Your task to perform on an android device: uninstall "LiveIn - Share Your Moment" Image 0: 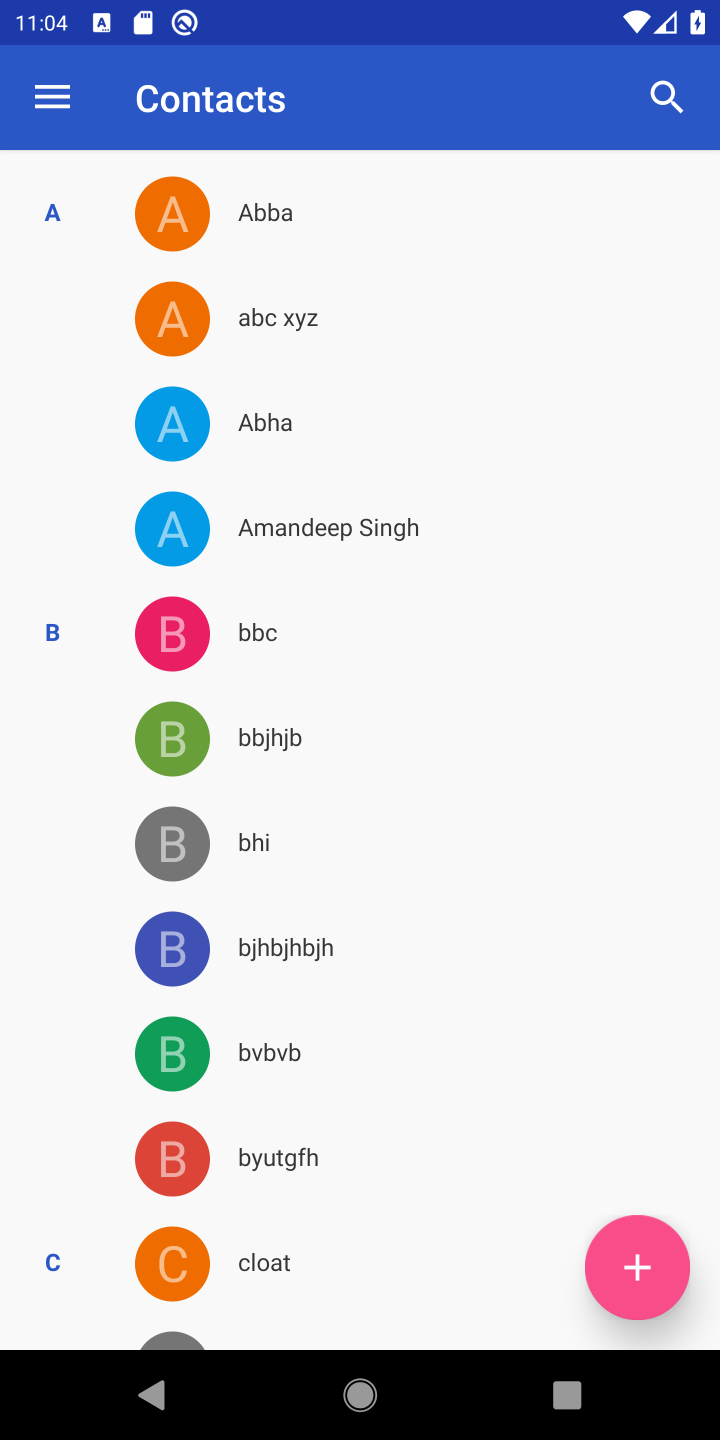
Step 0: press home button
Your task to perform on an android device: uninstall "LiveIn - Share Your Moment" Image 1: 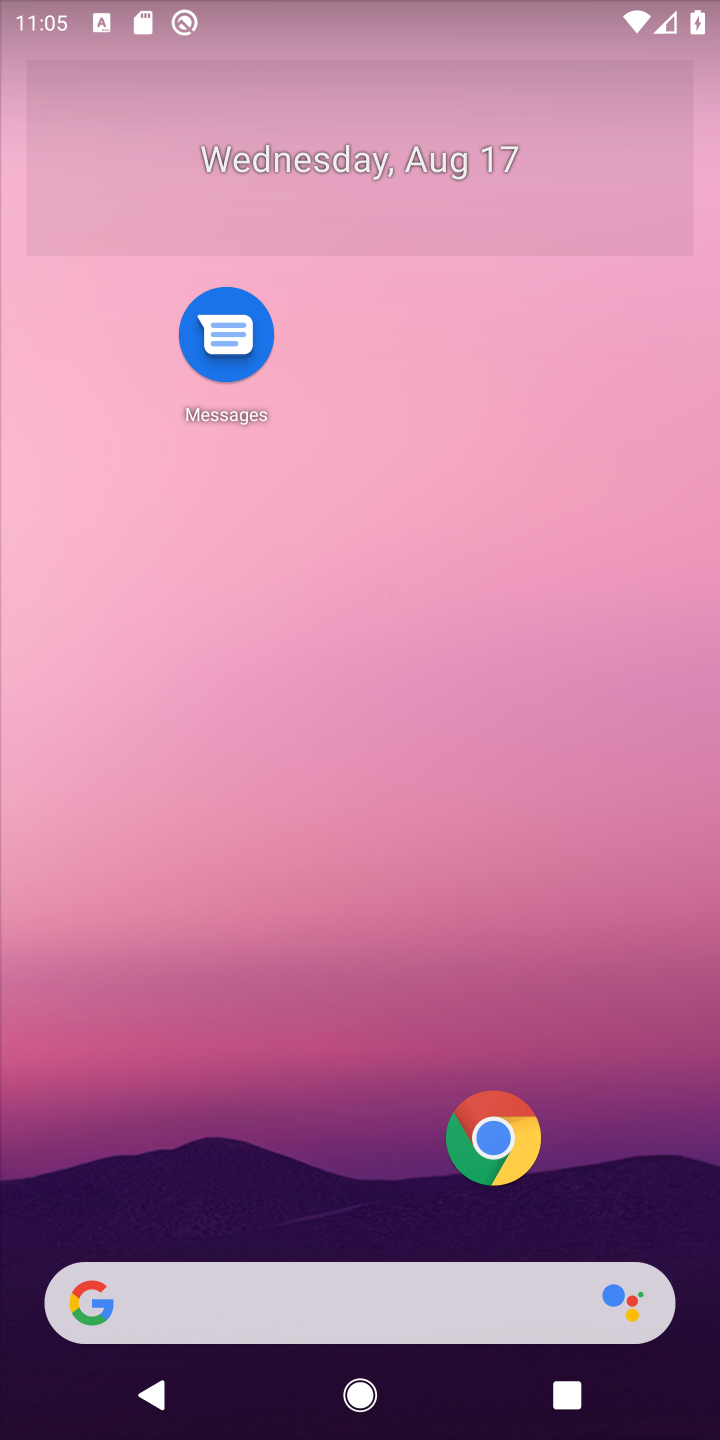
Step 1: drag from (399, 1186) to (323, 329)
Your task to perform on an android device: uninstall "LiveIn - Share Your Moment" Image 2: 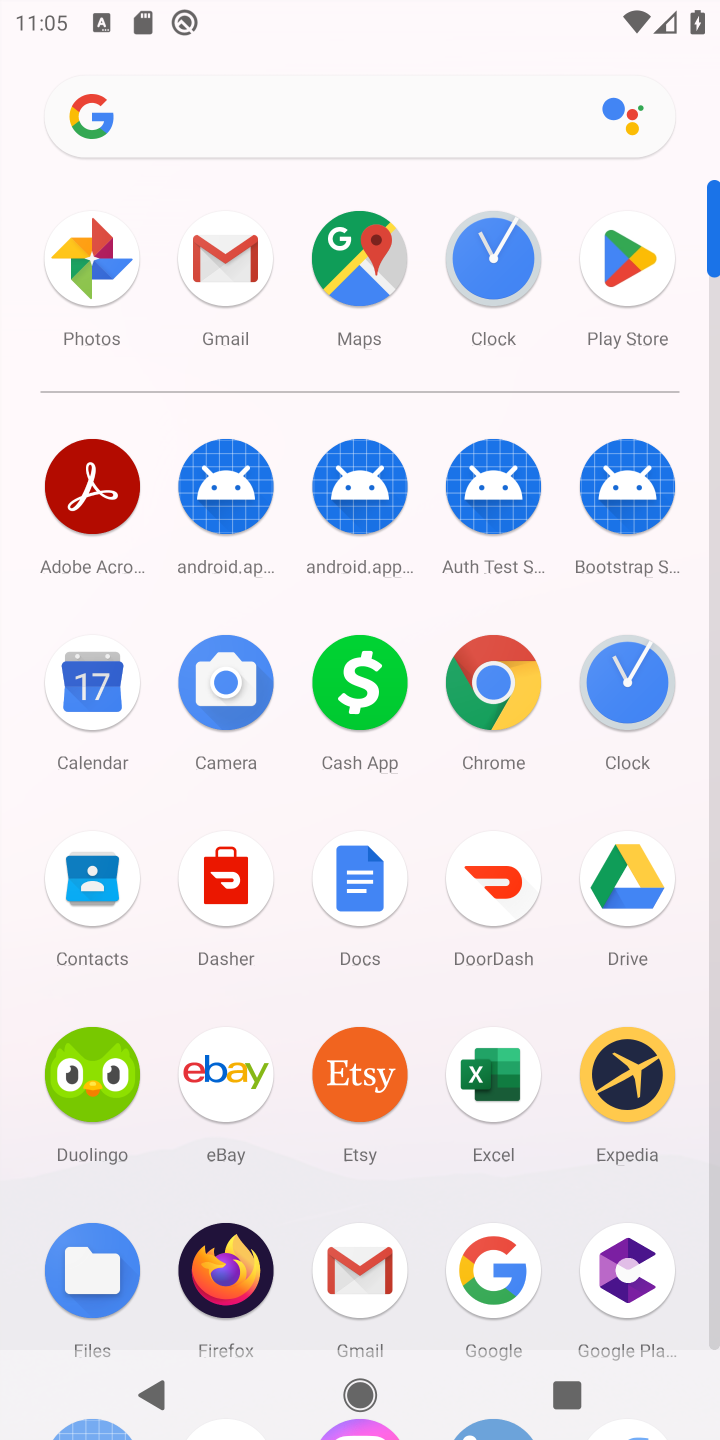
Step 2: click (644, 257)
Your task to perform on an android device: uninstall "LiveIn - Share Your Moment" Image 3: 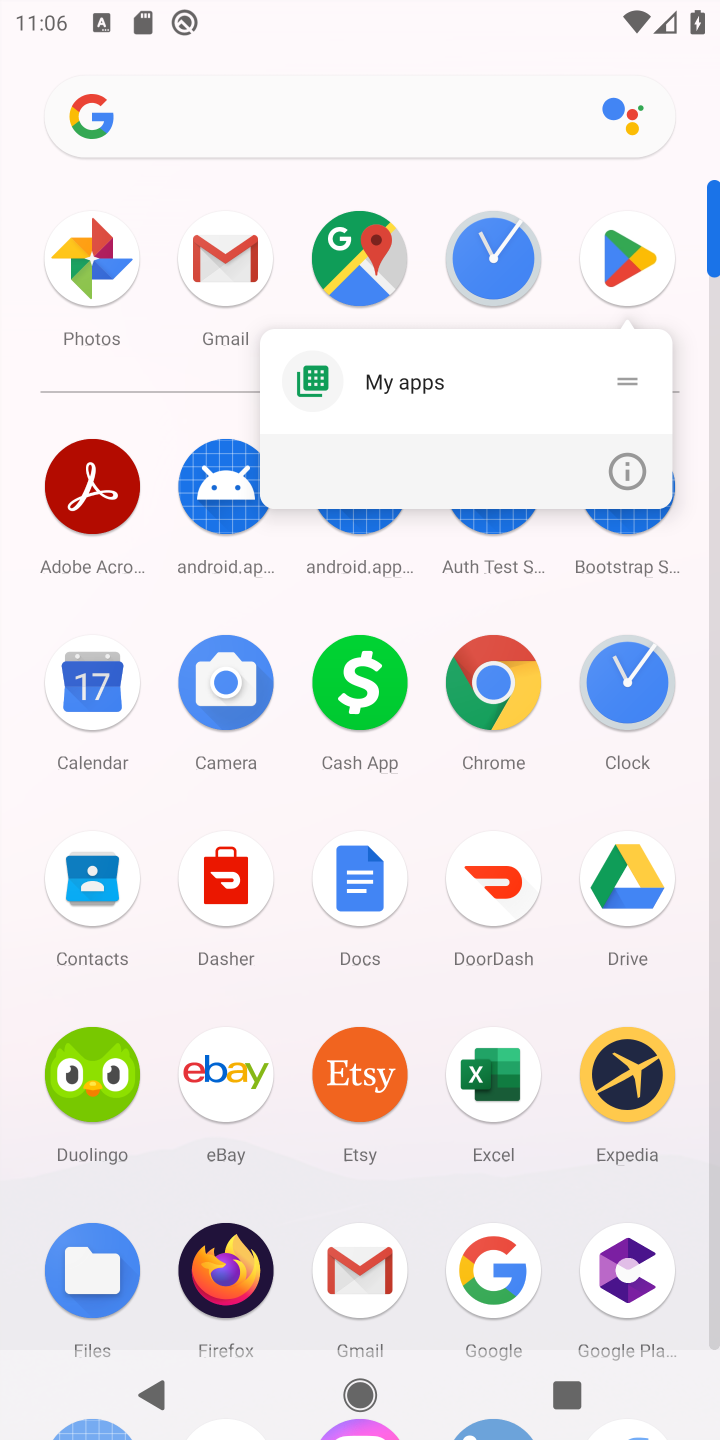
Step 3: click (617, 250)
Your task to perform on an android device: uninstall "LiveIn - Share Your Moment" Image 4: 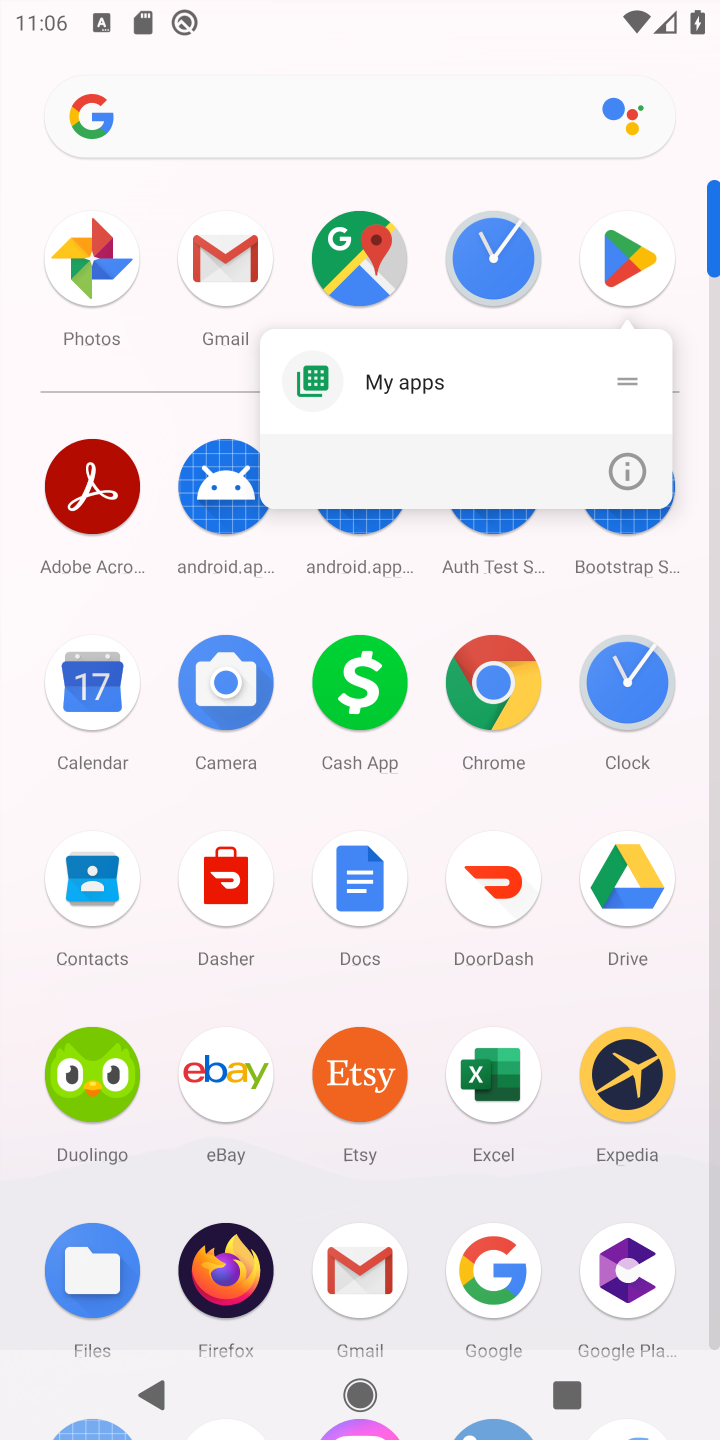
Step 4: click (637, 295)
Your task to perform on an android device: uninstall "LiveIn - Share Your Moment" Image 5: 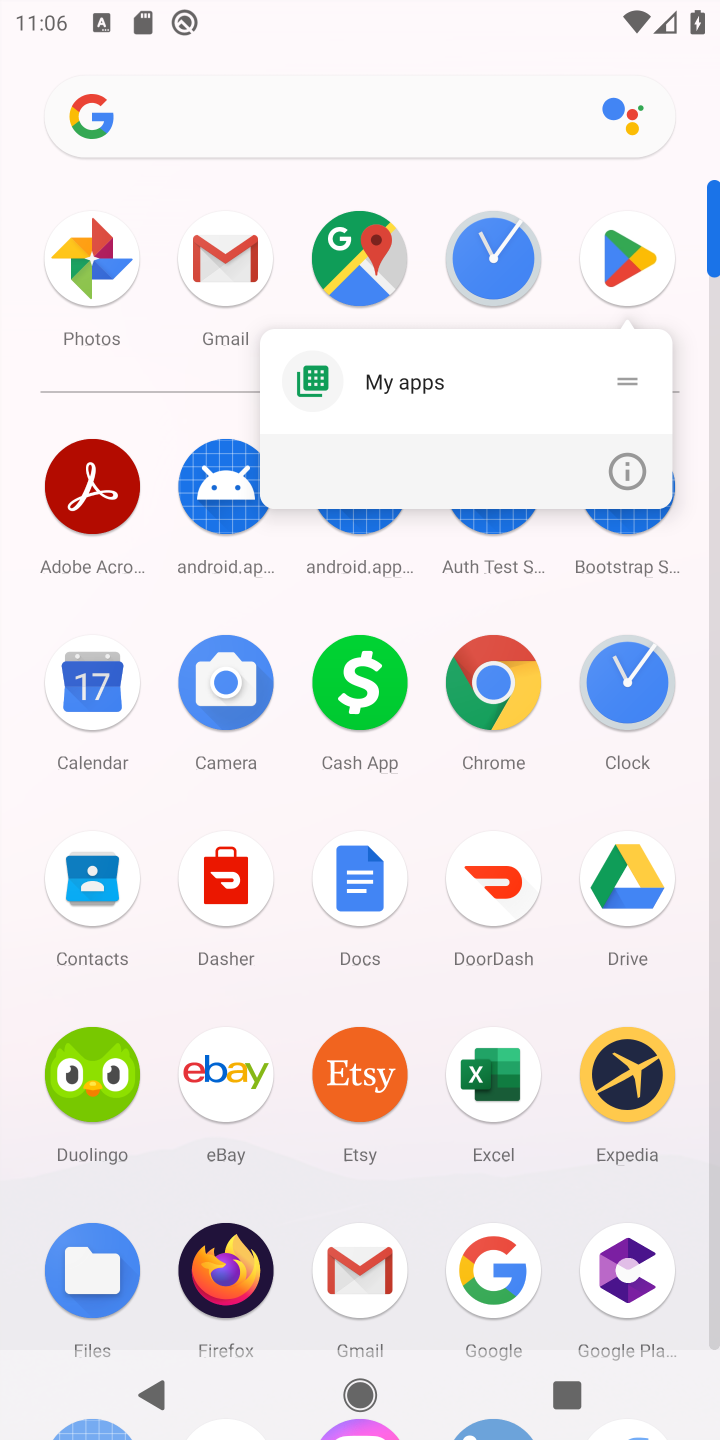
Step 5: click (633, 287)
Your task to perform on an android device: uninstall "LiveIn - Share Your Moment" Image 6: 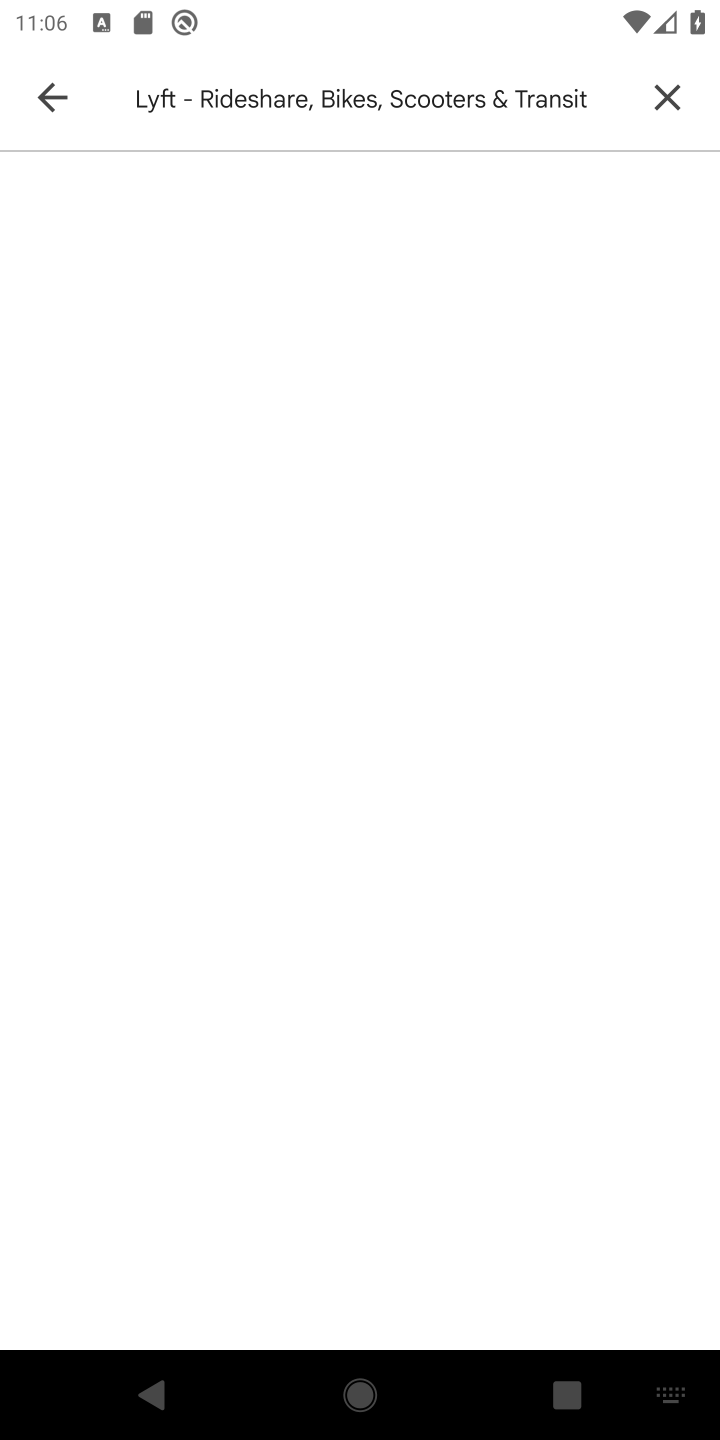
Step 6: click (668, 89)
Your task to perform on an android device: uninstall "LiveIn - Share Your Moment" Image 7: 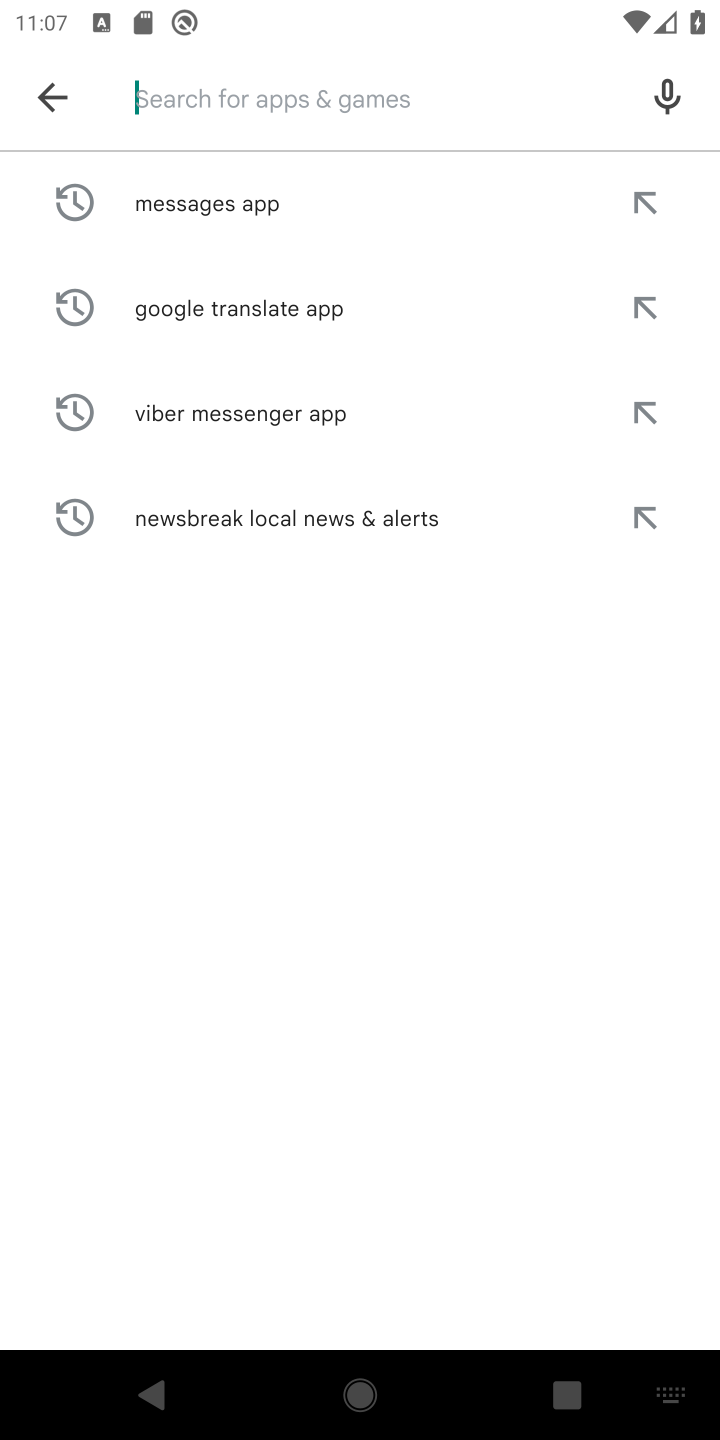
Step 7: click (270, 105)
Your task to perform on an android device: uninstall "LiveIn - Share Your Moment" Image 8: 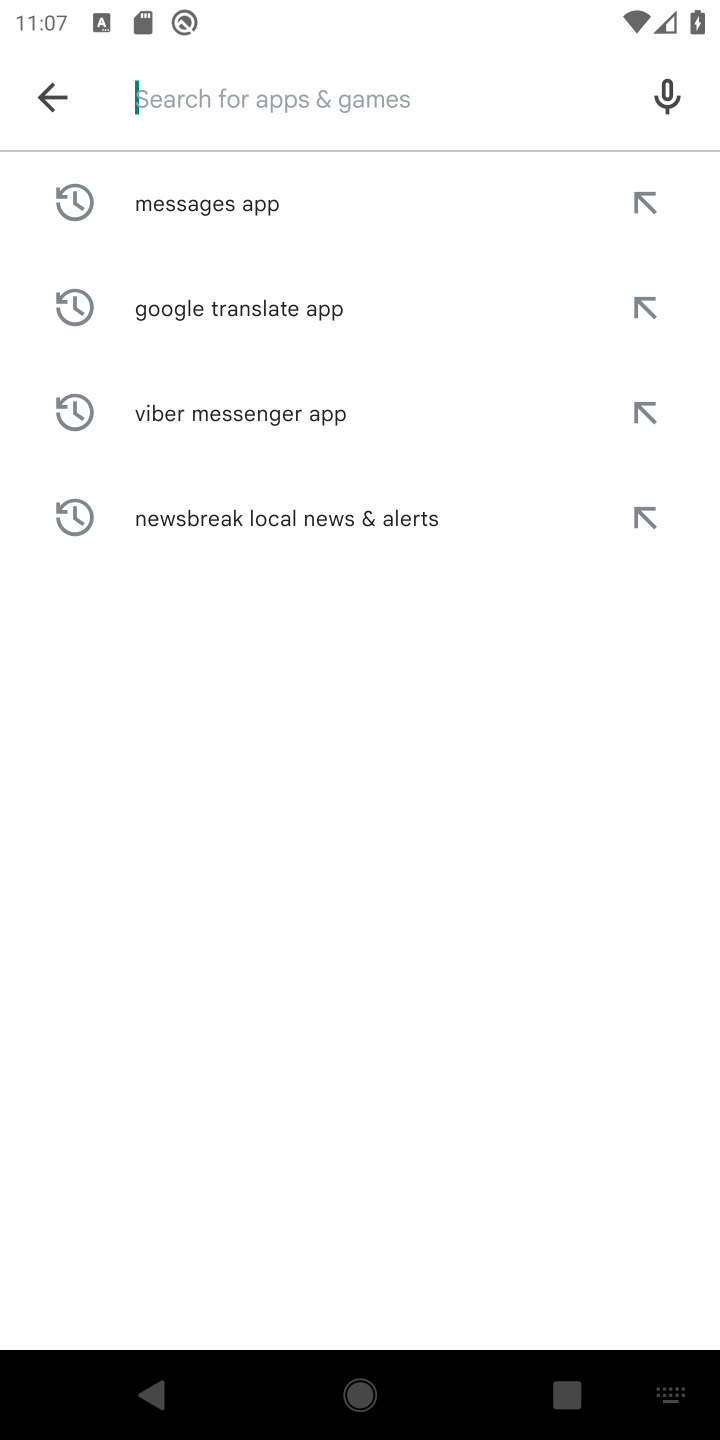
Step 8: type "LiveIn - Share Your Moment"
Your task to perform on an android device: uninstall "LiveIn - Share Your Moment" Image 9: 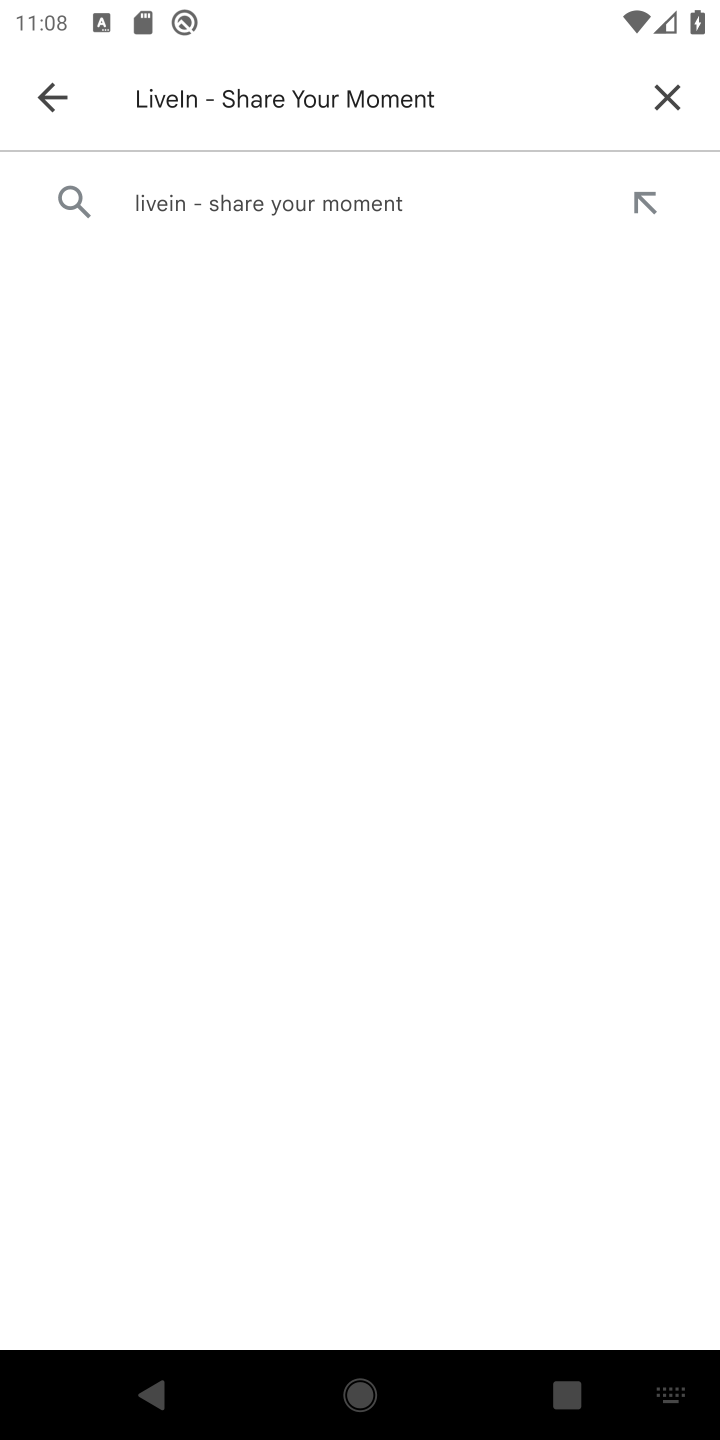
Step 9: click (350, 195)
Your task to perform on an android device: uninstall "LiveIn - Share Your Moment" Image 10: 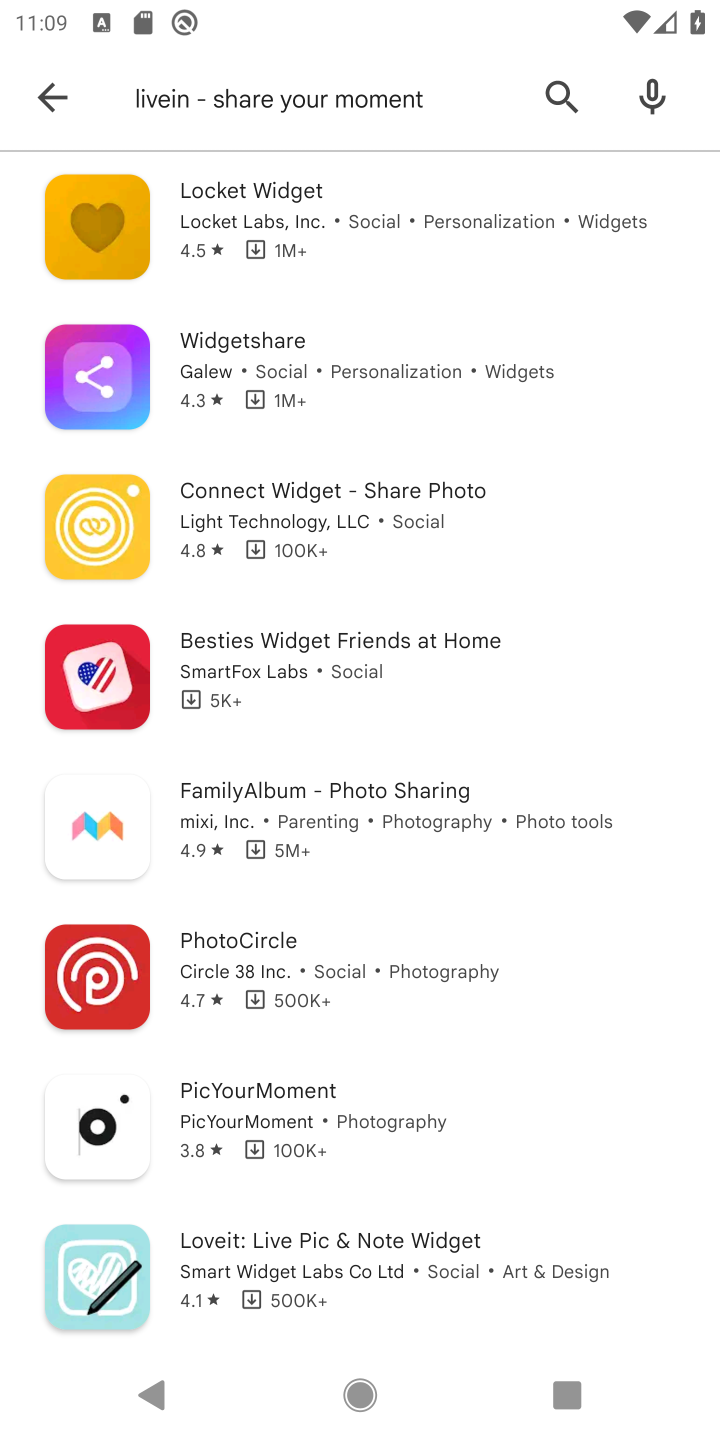
Step 10: task complete